Your task to perform on an android device: allow notifications from all sites in the chrome app Image 0: 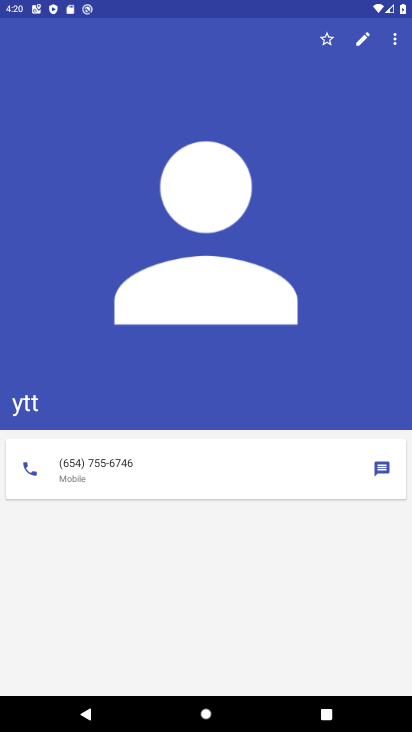
Step 0: press home button
Your task to perform on an android device: allow notifications from all sites in the chrome app Image 1: 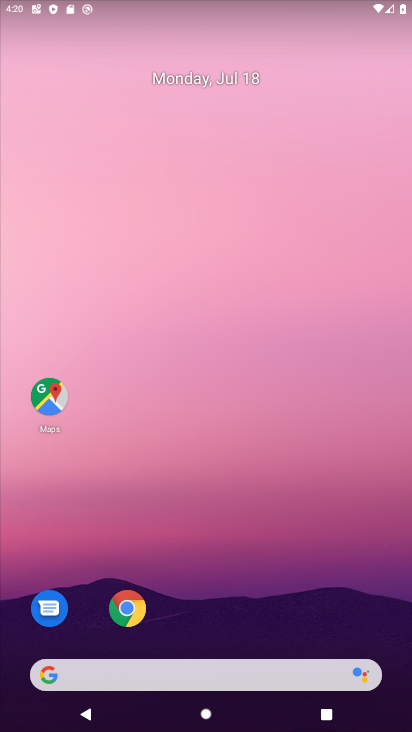
Step 1: click (119, 609)
Your task to perform on an android device: allow notifications from all sites in the chrome app Image 2: 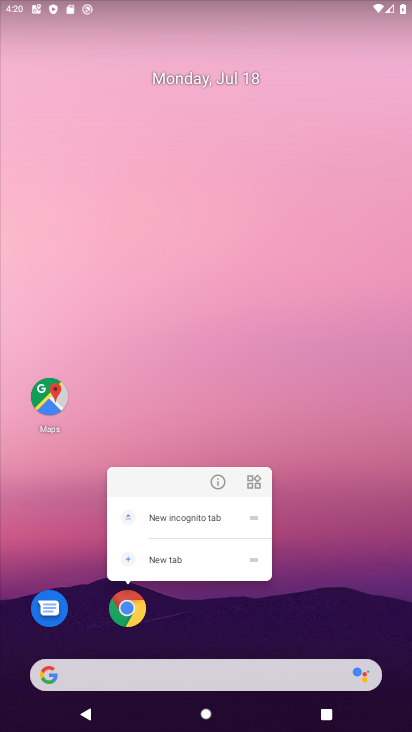
Step 2: click (221, 479)
Your task to perform on an android device: allow notifications from all sites in the chrome app Image 3: 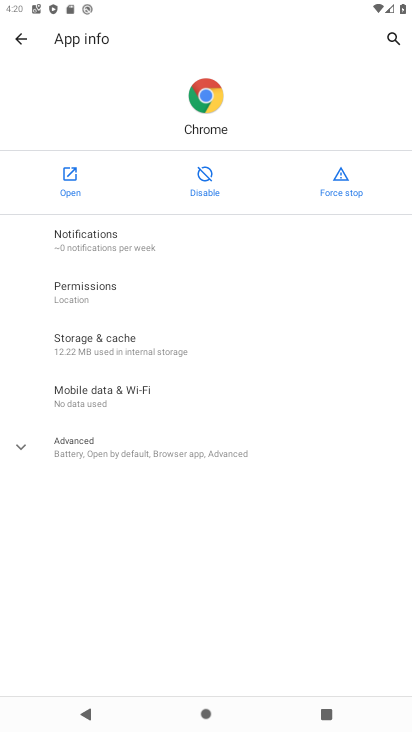
Step 3: click (133, 234)
Your task to perform on an android device: allow notifications from all sites in the chrome app Image 4: 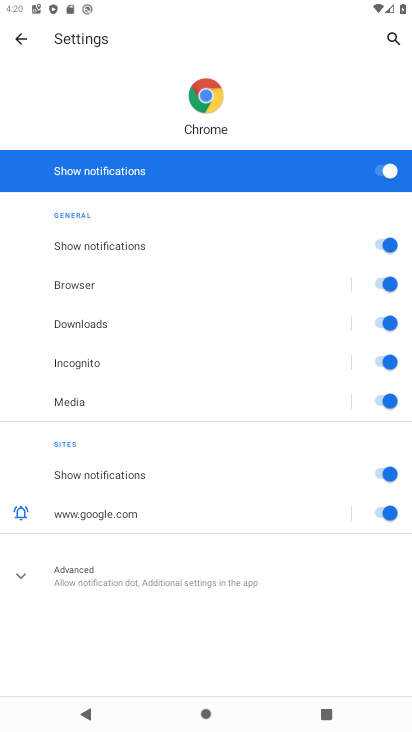
Step 4: task complete